Your task to perform on an android device: Open Maps and search for coffee Image 0: 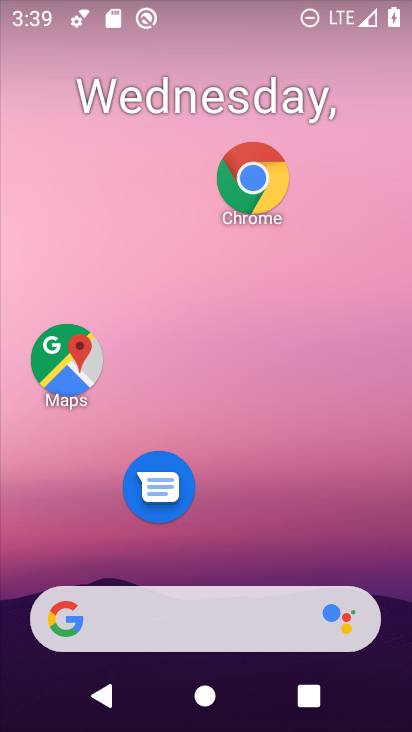
Step 0: click (61, 352)
Your task to perform on an android device: Open Maps and search for coffee Image 1: 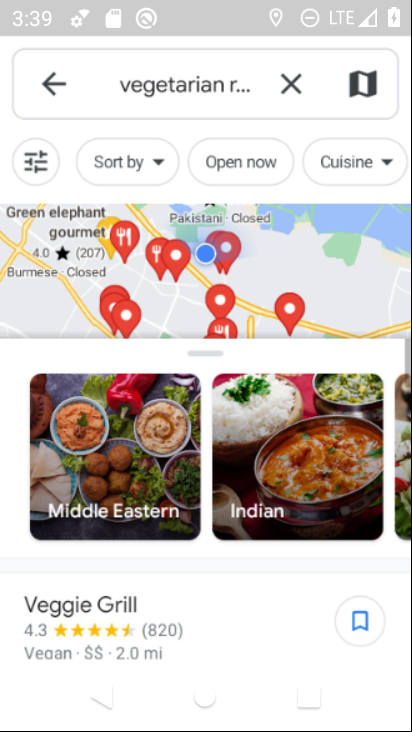
Step 1: click (284, 83)
Your task to perform on an android device: Open Maps and search for coffee Image 2: 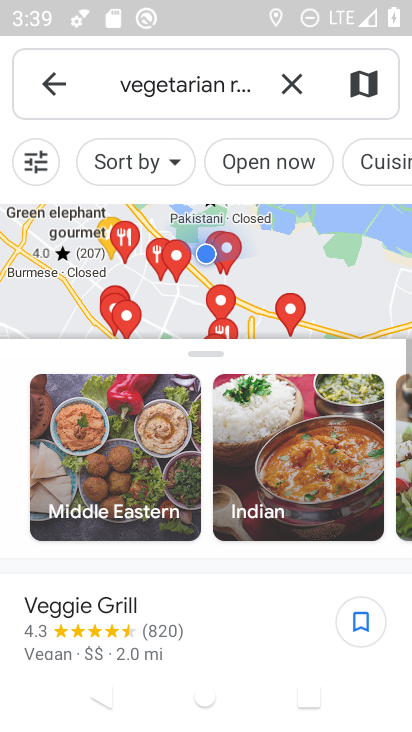
Step 2: click (290, 78)
Your task to perform on an android device: Open Maps and search for coffee Image 3: 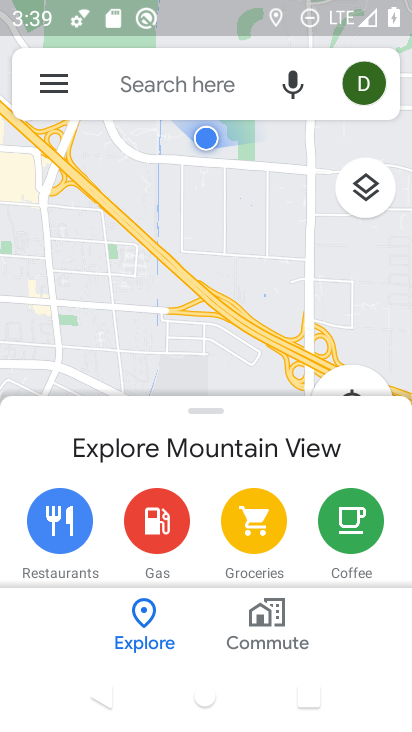
Step 3: click (216, 81)
Your task to perform on an android device: Open Maps and search for coffee Image 4: 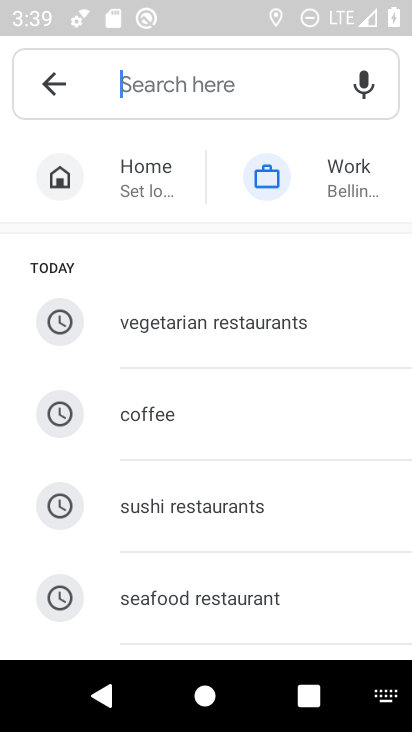
Step 4: click (170, 411)
Your task to perform on an android device: Open Maps and search for coffee Image 5: 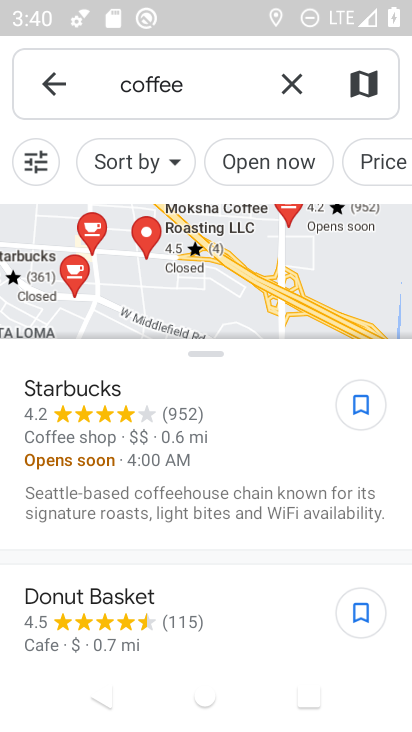
Step 5: task complete